Your task to perform on an android device: Open Youtube and go to the subscriptions tab Image 0: 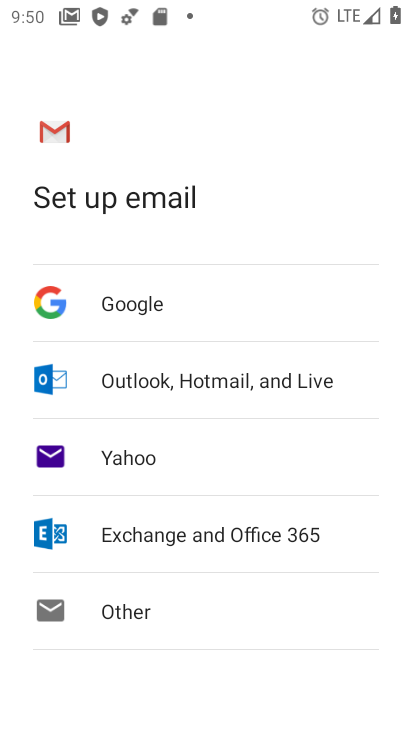
Step 0: press home button
Your task to perform on an android device: Open Youtube and go to the subscriptions tab Image 1: 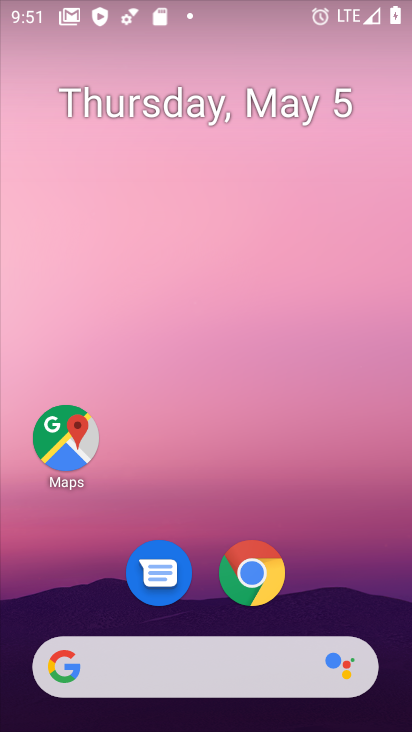
Step 1: drag from (199, 570) to (296, 0)
Your task to perform on an android device: Open Youtube and go to the subscriptions tab Image 2: 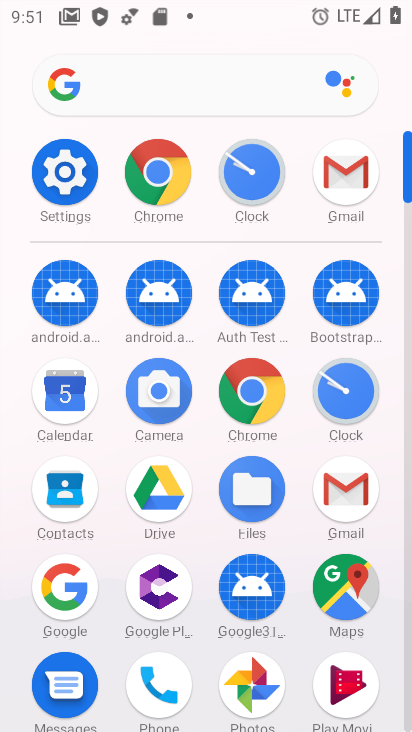
Step 2: drag from (197, 631) to (303, 26)
Your task to perform on an android device: Open Youtube and go to the subscriptions tab Image 3: 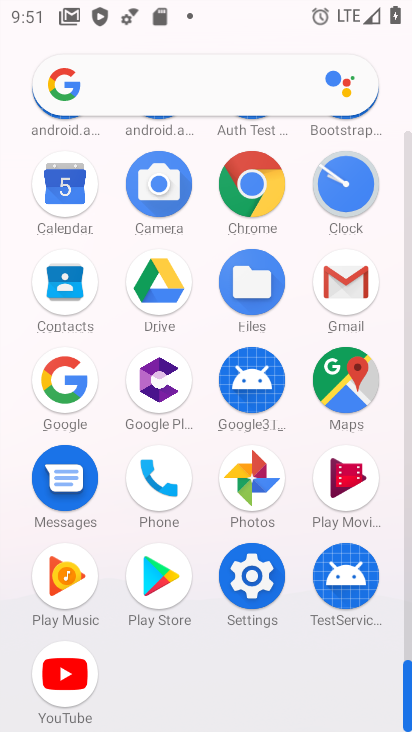
Step 3: click (65, 674)
Your task to perform on an android device: Open Youtube and go to the subscriptions tab Image 4: 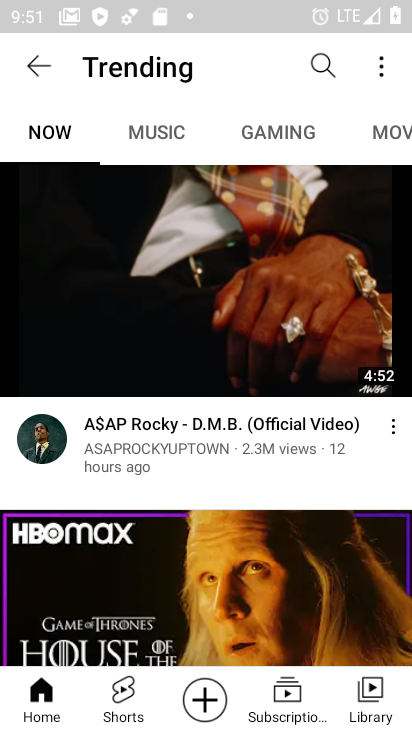
Step 4: click (293, 694)
Your task to perform on an android device: Open Youtube and go to the subscriptions tab Image 5: 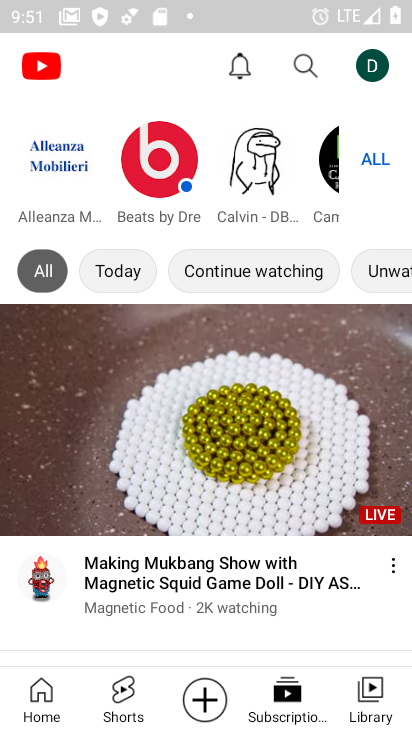
Step 5: click (288, 700)
Your task to perform on an android device: Open Youtube and go to the subscriptions tab Image 6: 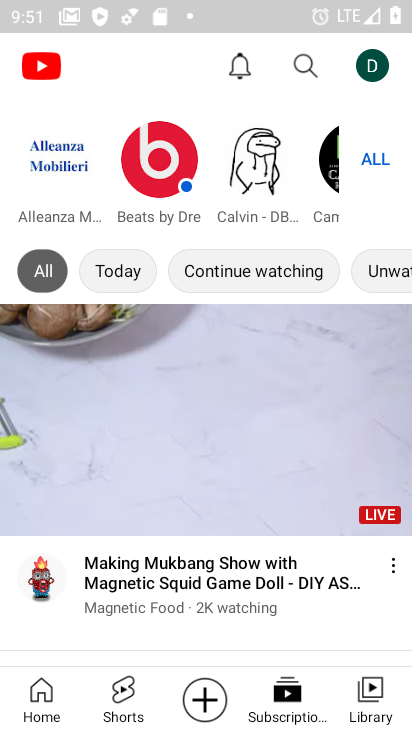
Step 6: task complete